Your task to perform on an android device: delete a single message in the gmail app Image 0: 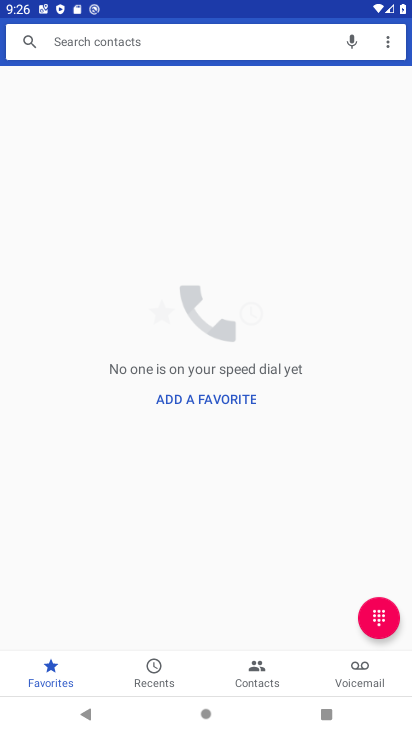
Step 0: press home button
Your task to perform on an android device: delete a single message in the gmail app Image 1: 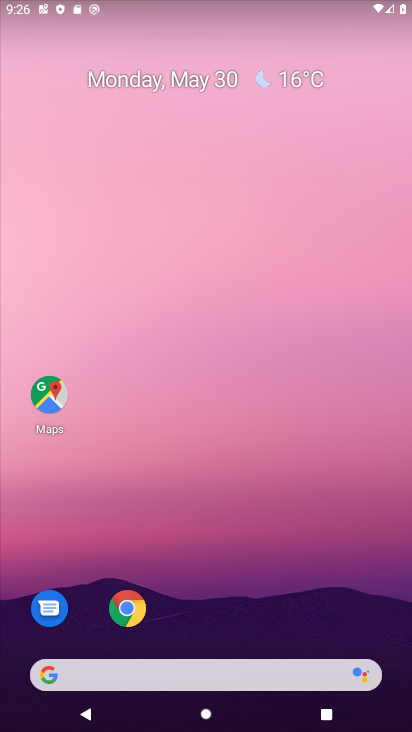
Step 1: drag from (397, 682) to (347, 137)
Your task to perform on an android device: delete a single message in the gmail app Image 2: 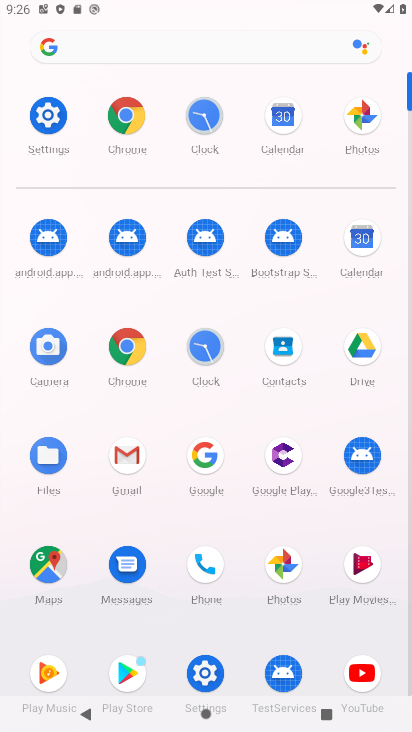
Step 2: click (121, 456)
Your task to perform on an android device: delete a single message in the gmail app Image 3: 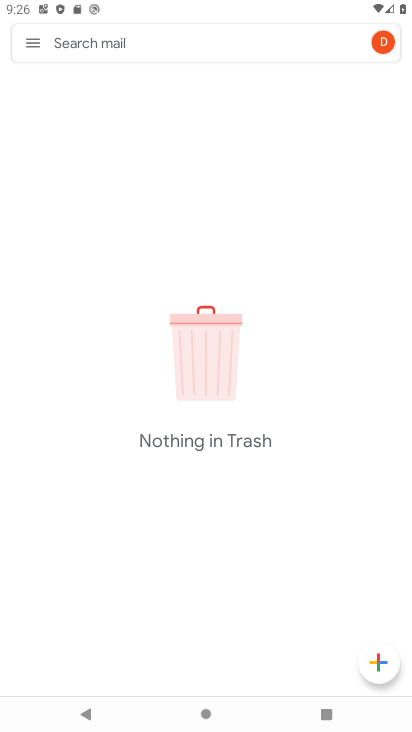
Step 3: click (36, 39)
Your task to perform on an android device: delete a single message in the gmail app Image 4: 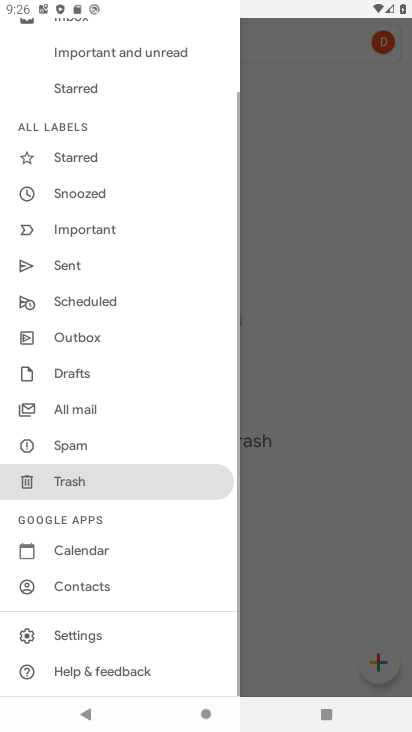
Step 4: drag from (138, 79) to (192, 388)
Your task to perform on an android device: delete a single message in the gmail app Image 5: 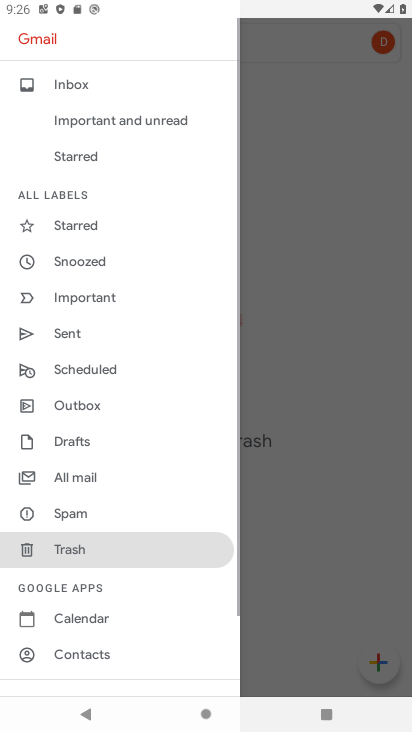
Step 5: click (70, 87)
Your task to perform on an android device: delete a single message in the gmail app Image 6: 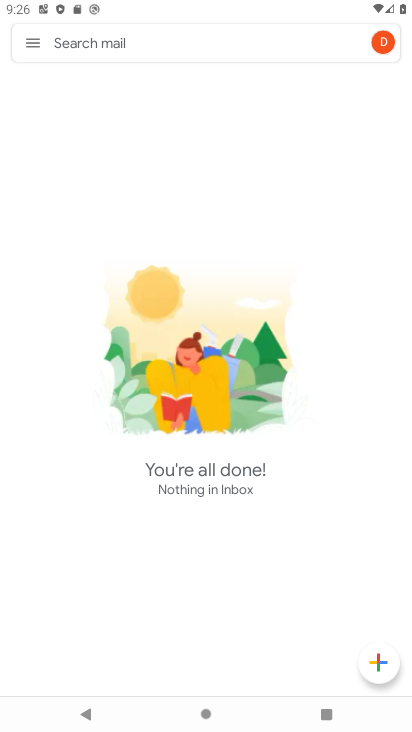
Step 6: task complete